Your task to perform on an android device: Open Maps and search for coffee Image 0: 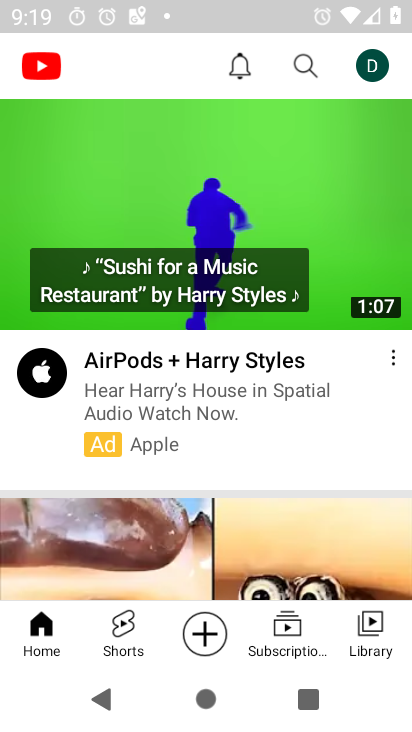
Step 0: press back button
Your task to perform on an android device: Open Maps and search for coffee Image 1: 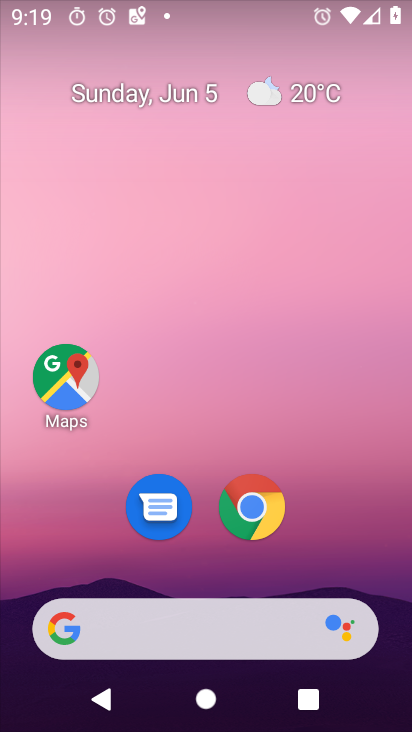
Step 1: click (63, 380)
Your task to perform on an android device: Open Maps and search for coffee Image 2: 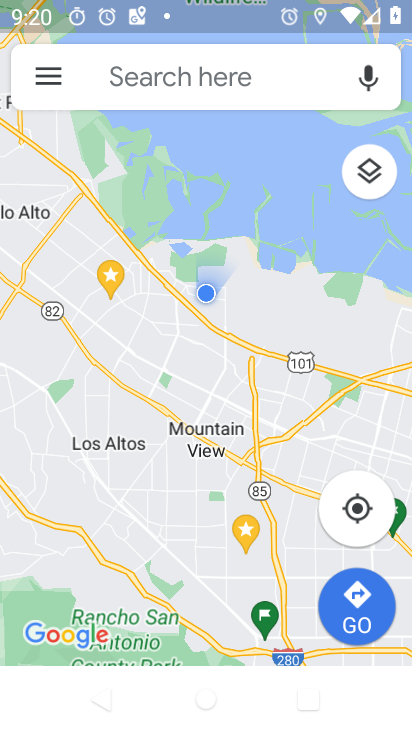
Step 2: click (289, 83)
Your task to perform on an android device: Open Maps and search for coffee Image 3: 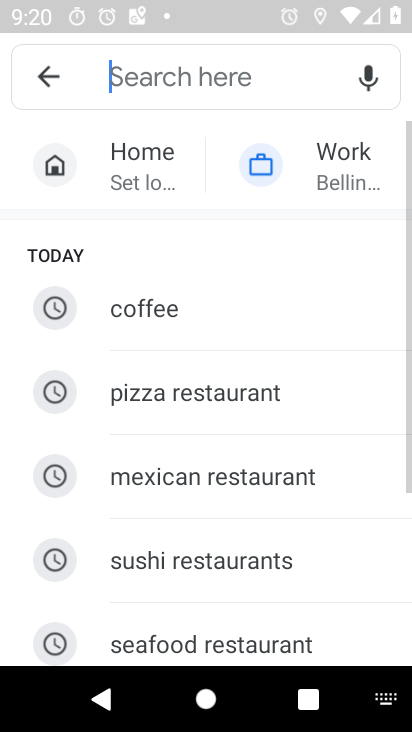
Step 3: click (139, 306)
Your task to perform on an android device: Open Maps and search for coffee Image 4: 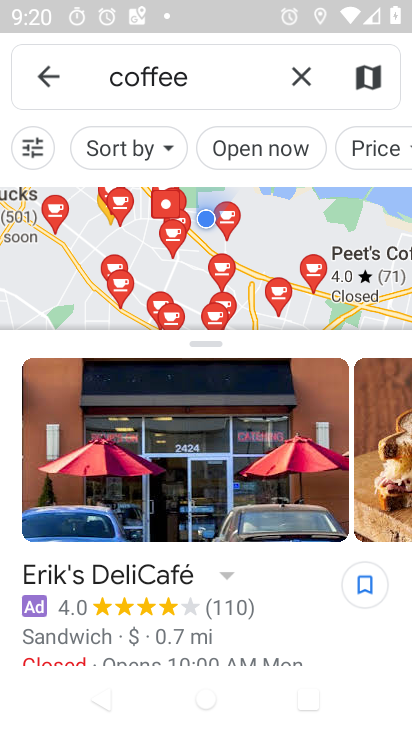
Step 4: task complete